Your task to perform on an android device: Open Google Chrome Image 0: 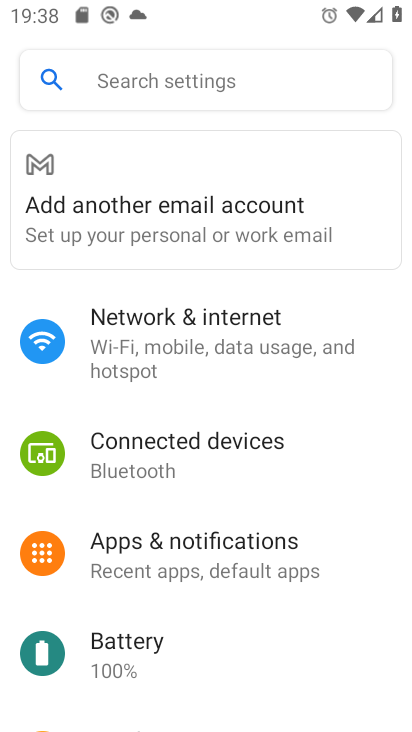
Step 0: press home button
Your task to perform on an android device: Open Google Chrome Image 1: 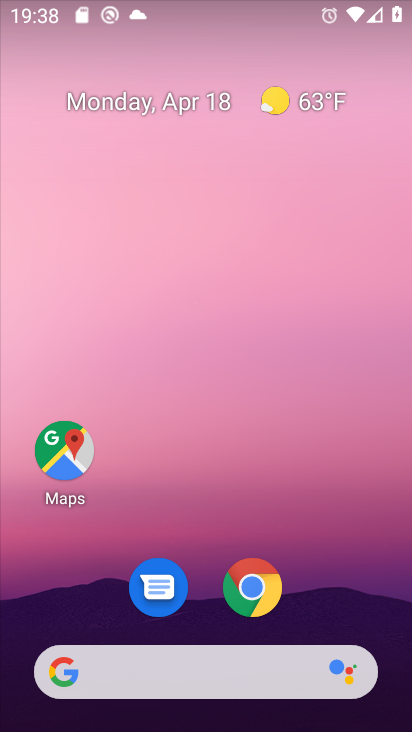
Step 1: click (260, 607)
Your task to perform on an android device: Open Google Chrome Image 2: 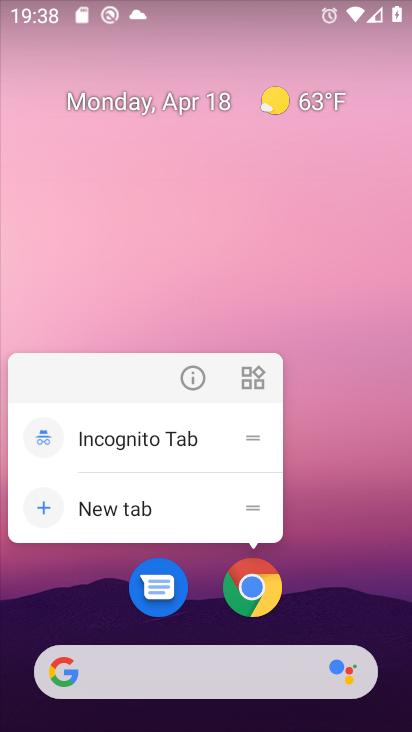
Step 2: click (260, 607)
Your task to perform on an android device: Open Google Chrome Image 3: 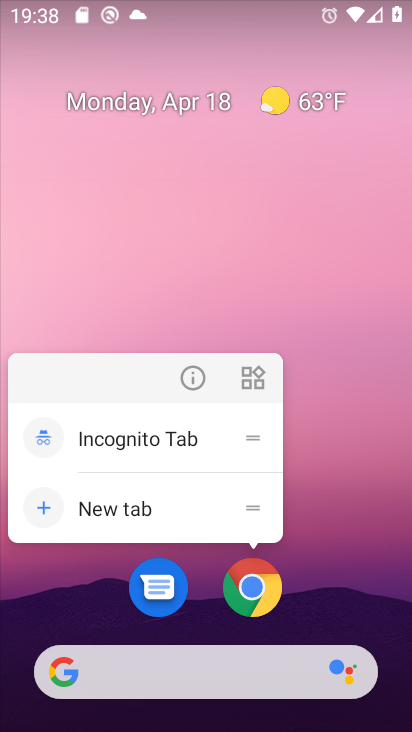
Step 3: click (257, 595)
Your task to perform on an android device: Open Google Chrome Image 4: 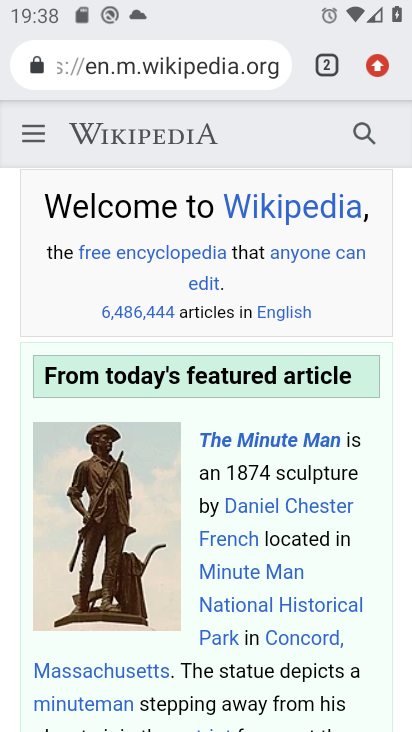
Step 4: task complete